Your task to perform on an android device: Show me popular videos on Youtube Image 0: 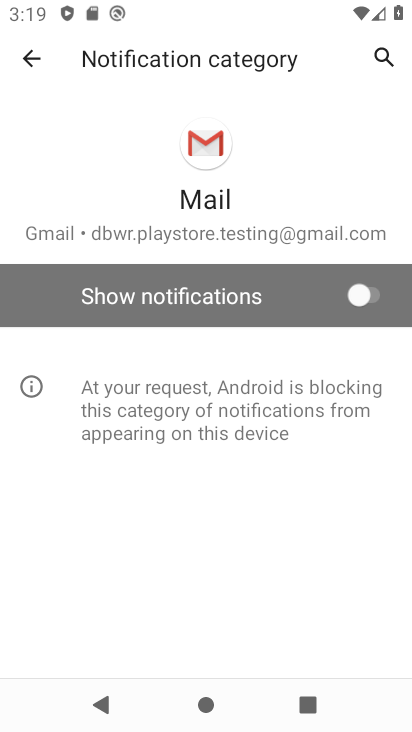
Step 0: press home button
Your task to perform on an android device: Show me popular videos on Youtube Image 1: 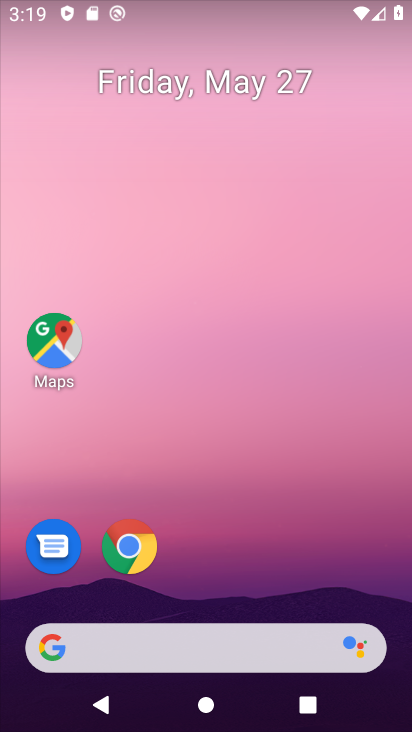
Step 1: drag from (219, 623) to (342, 36)
Your task to perform on an android device: Show me popular videos on Youtube Image 2: 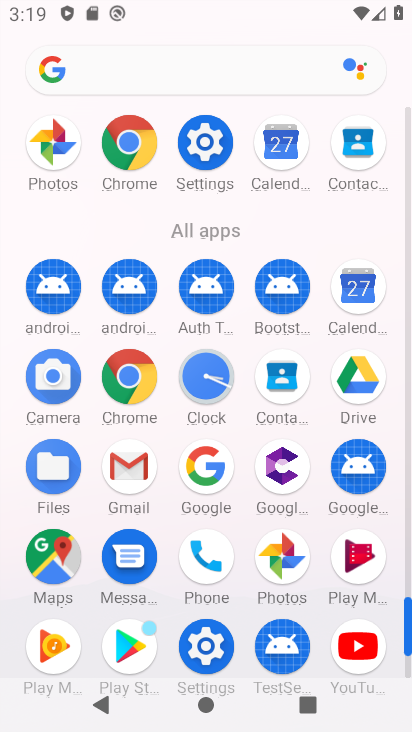
Step 2: drag from (157, 467) to (200, 345)
Your task to perform on an android device: Show me popular videos on Youtube Image 3: 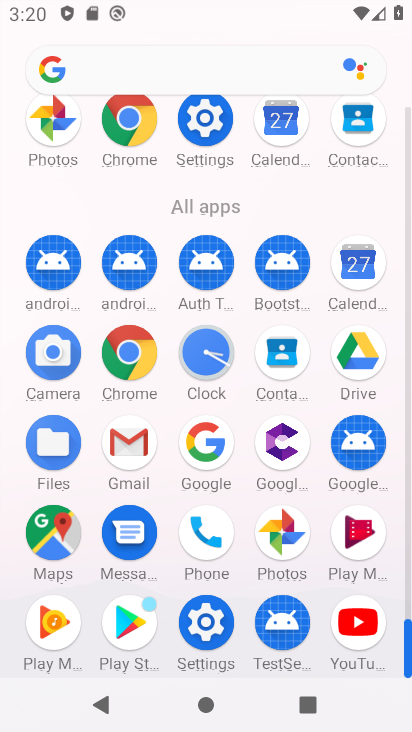
Step 3: click (358, 635)
Your task to perform on an android device: Show me popular videos on Youtube Image 4: 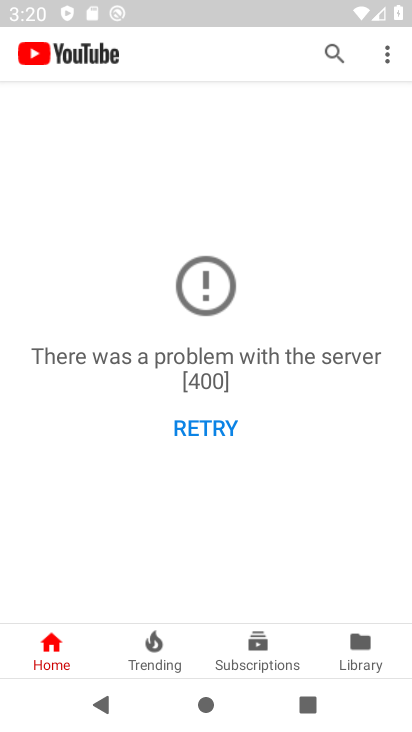
Step 4: click (365, 662)
Your task to perform on an android device: Show me popular videos on Youtube Image 5: 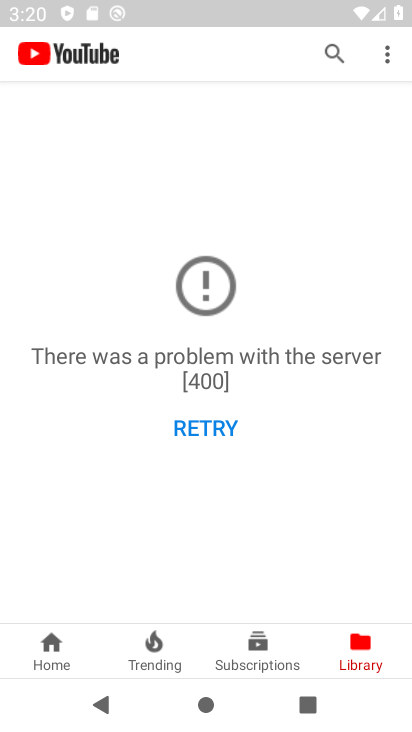
Step 5: task complete